Your task to perform on an android device: stop showing notifications on the lock screen Image 0: 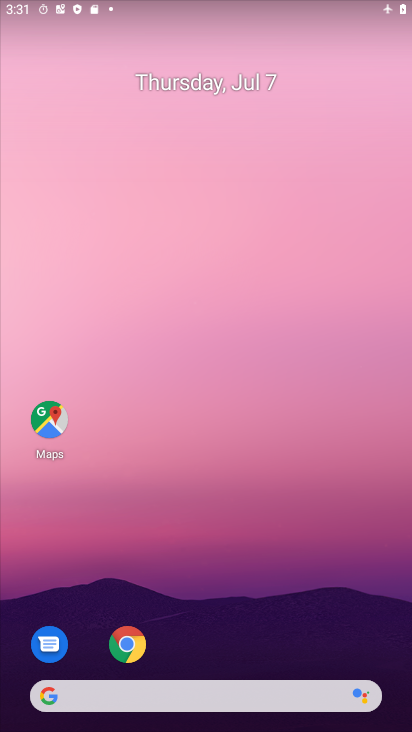
Step 0: drag from (246, 640) to (217, 88)
Your task to perform on an android device: stop showing notifications on the lock screen Image 1: 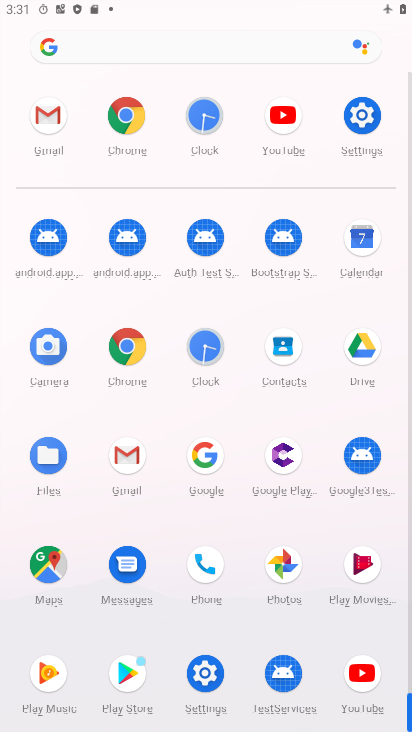
Step 1: click (370, 128)
Your task to perform on an android device: stop showing notifications on the lock screen Image 2: 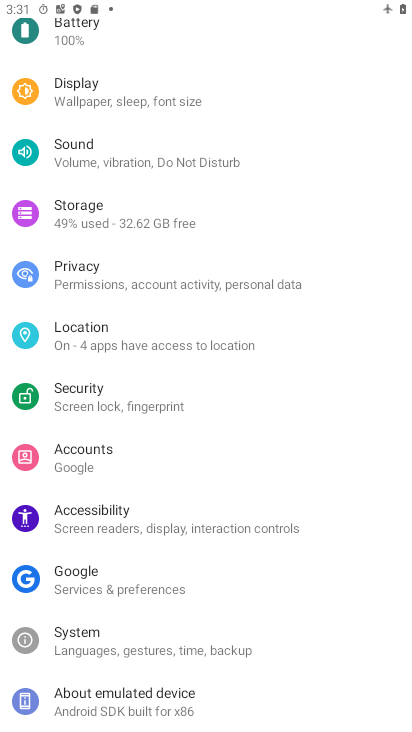
Step 2: drag from (176, 210) to (172, 594)
Your task to perform on an android device: stop showing notifications on the lock screen Image 3: 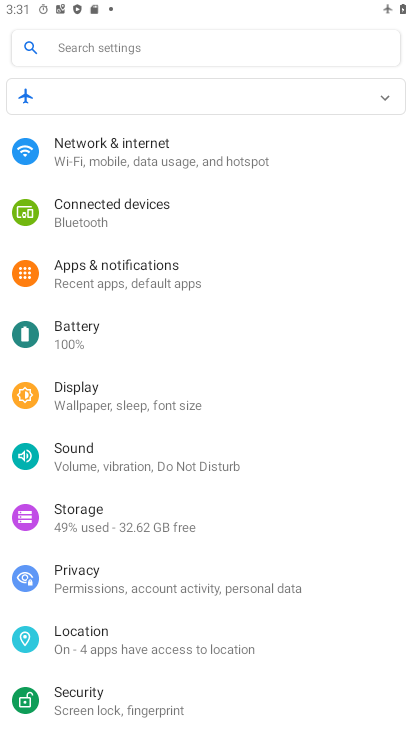
Step 3: click (150, 268)
Your task to perform on an android device: stop showing notifications on the lock screen Image 4: 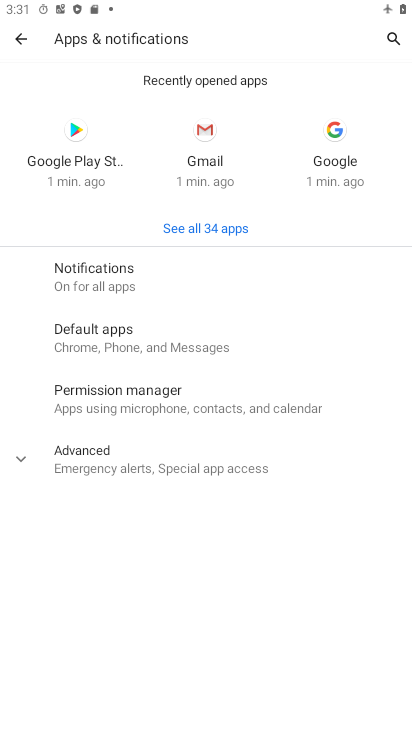
Step 4: click (119, 463)
Your task to perform on an android device: stop showing notifications on the lock screen Image 5: 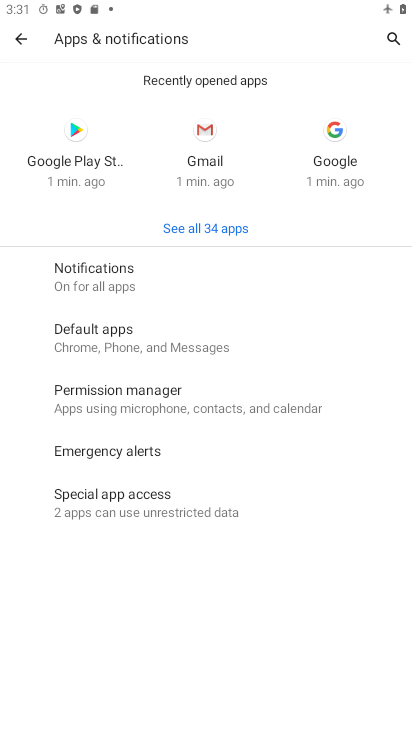
Step 5: click (97, 286)
Your task to perform on an android device: stop showing notifications on the lock screen Image 6: 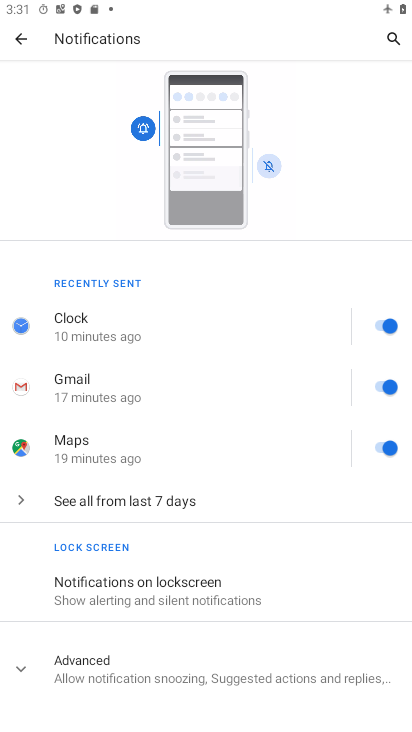
Step 6: click (164, 588)
Your task to perform on an android device: stop showing notifications on the lock screen Image 7: 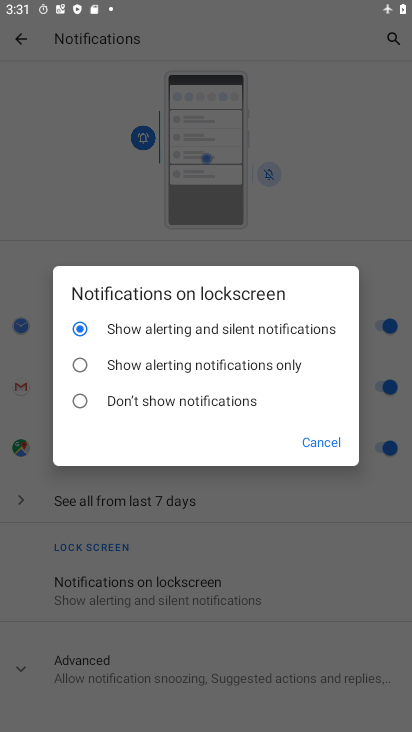
Step 7: click (196, 412)
Your task to perform on an android device: stop showing notifications on the lock screen Image 8: 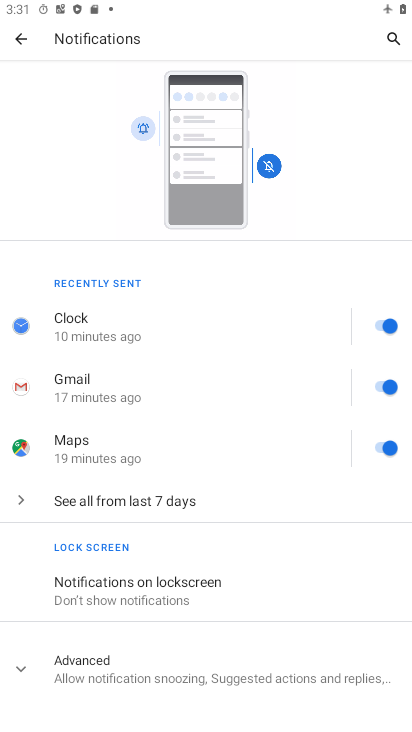
Step 8: task complete